Your task to perform on an android device: Open privacy settings Image 0: 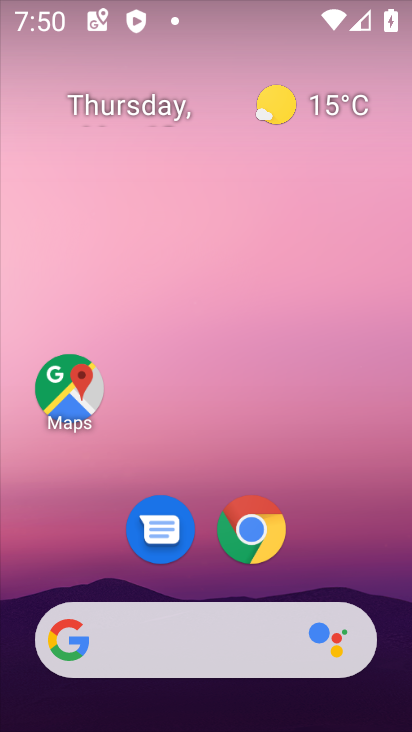
Step 0: drag from (224, 708) to (221, 85)
Your task to perform on an android device: Open privacy settings Image 1: 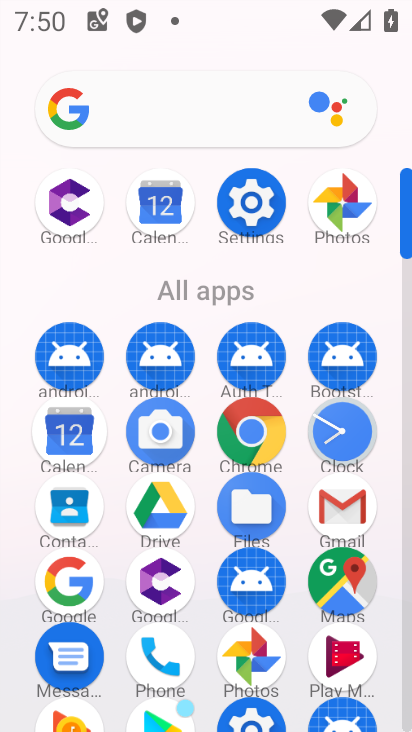
Step 1: click (259, 186)
Your task to perform on an android device: Open privacy settings Image 2: 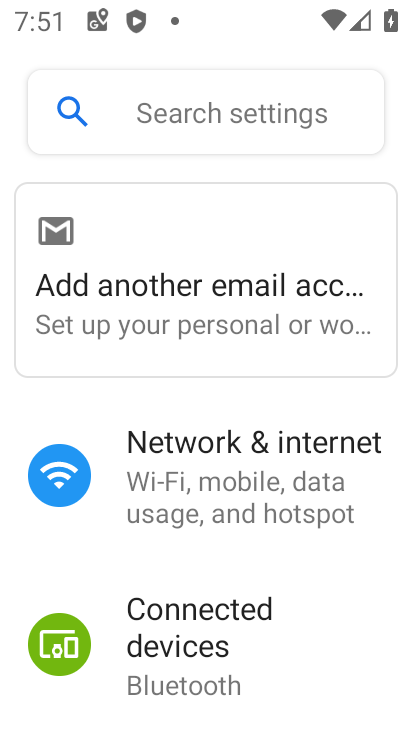
Step 2: drag from (227, 653) to (247, 22)
Your task to perform on an android device: Open privacy settings Image 3: 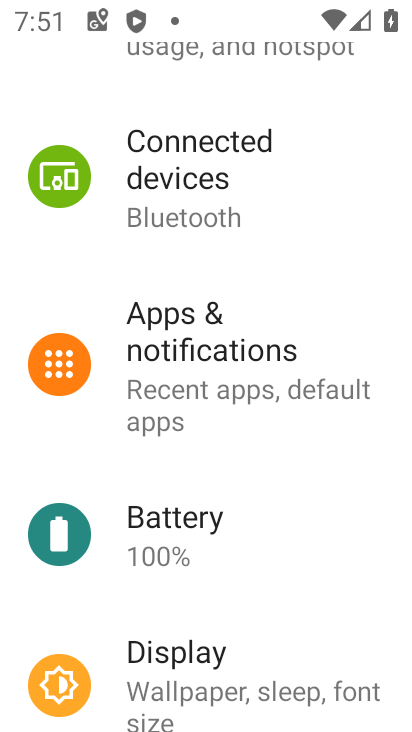
Step 3: drag from (270, 668) to (214, 215)
Your task to perform on an android device: Open privacy settings Image 4: 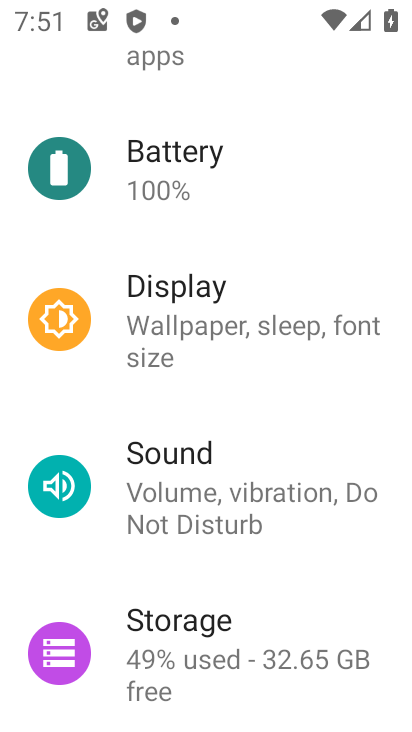
Step 4: drag from (296, 210) to (250, 618)
Your task to perform on an android device: Open privacy settings Image 5: 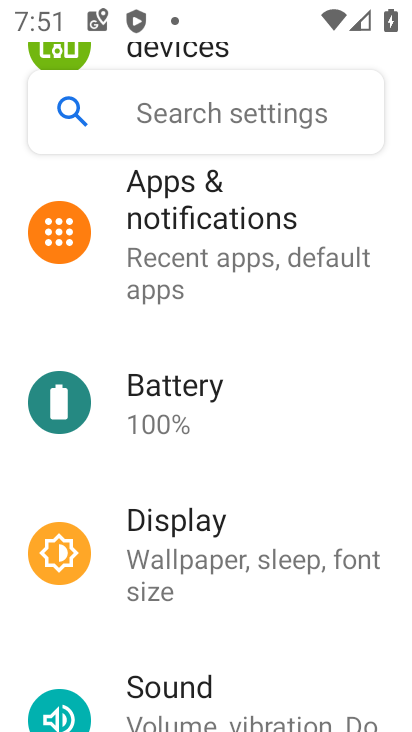
Step 5: drag from (250, 678) to (203, 17)
Your task to perform on an android device: Open privacy settings Image 6: 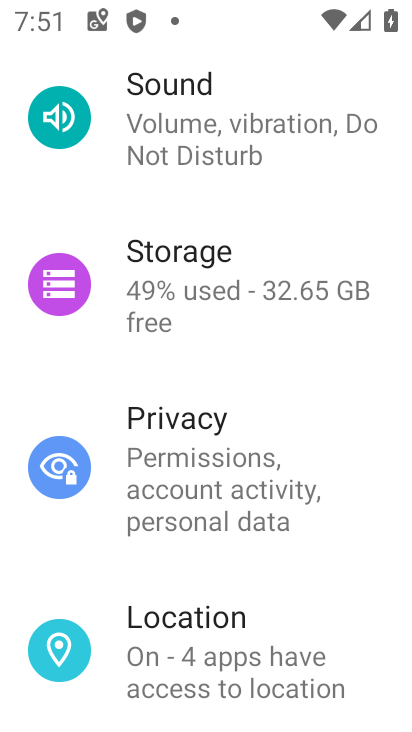
Step 6: click (232, 460)
Your task to perform on an android device: Open privacy settings Image 7: 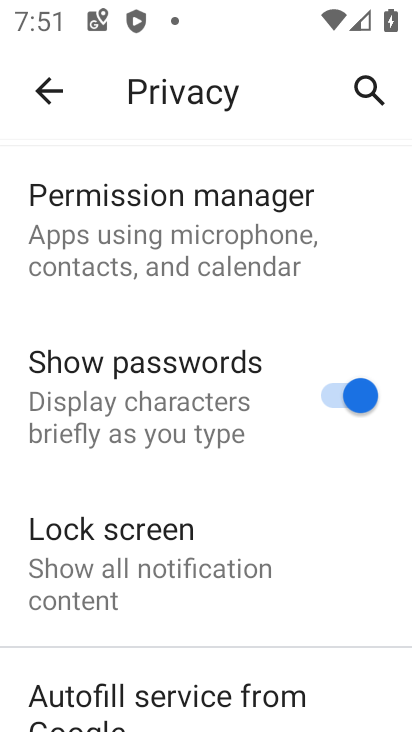
Step 7: task complete